Your task to perform on an android device: choose inbox layout in the gmail app Image 0: 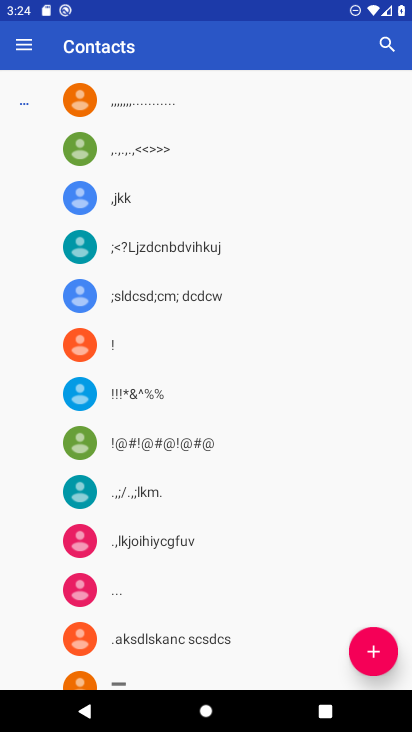
Step 0: press home button
Your task to perform on an android device: choose inbox layout in the gmail app Image 1: 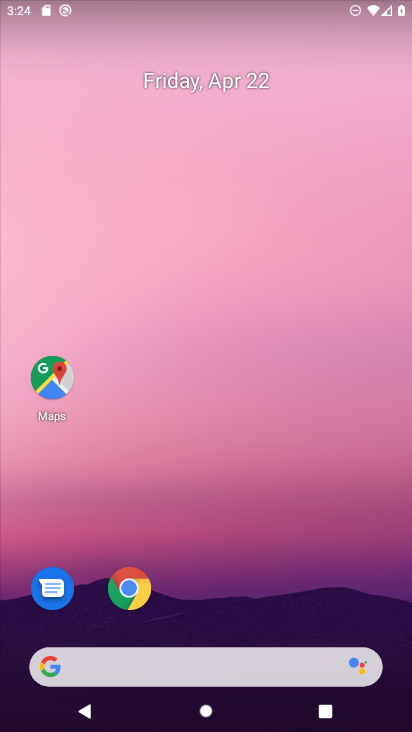
Step 1: drag from (200, 632) to (286, 161)
Your task to perform on an android device: choose inbox layout in the gmail app Image 2: 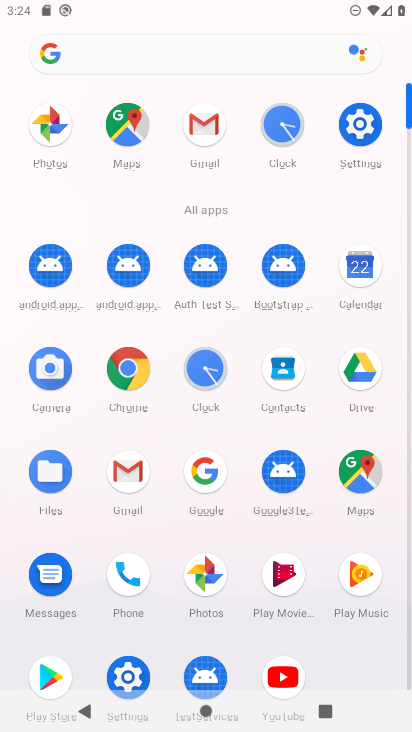
Step 2: click (132, 480)
Your task to perform on an android device: choose inbox layout in the gmail app Image 3: 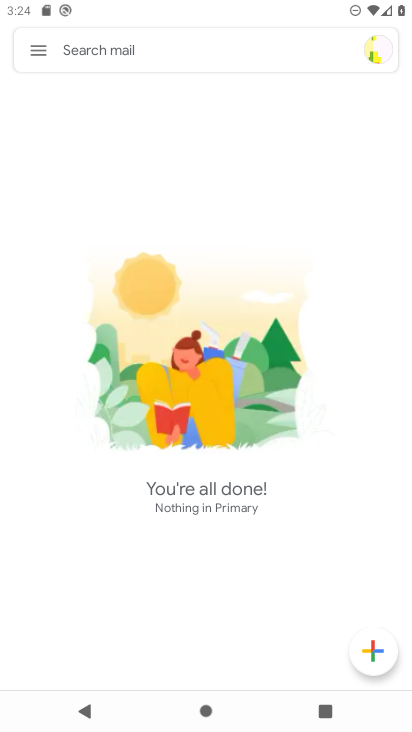
Step 3: click (45, 53)
Your task to perform on an android device: choose inbox layout in the gmail app Image 4: 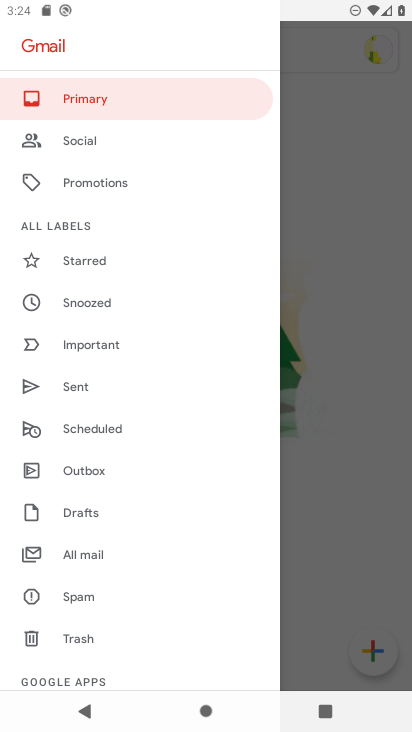
Step 4: drag from (126, 642) to (161, 274)
Your task to perform on an android device: choose inbox layout in the gmail app Image 5: 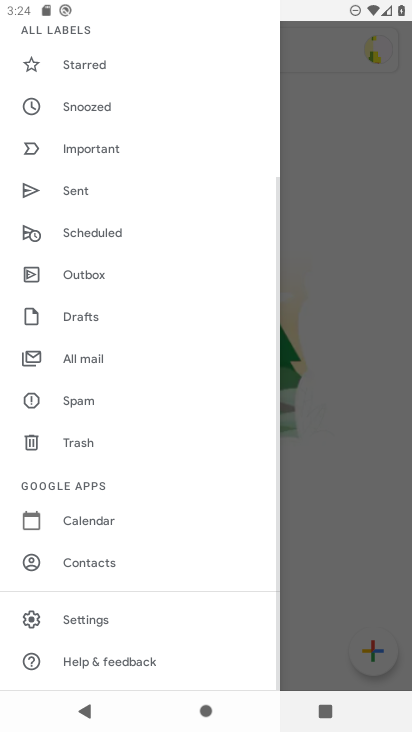
Step 5: click (96, 620)
Your task to perform on an android device: choose inbox layout in the gmail app Image 6: 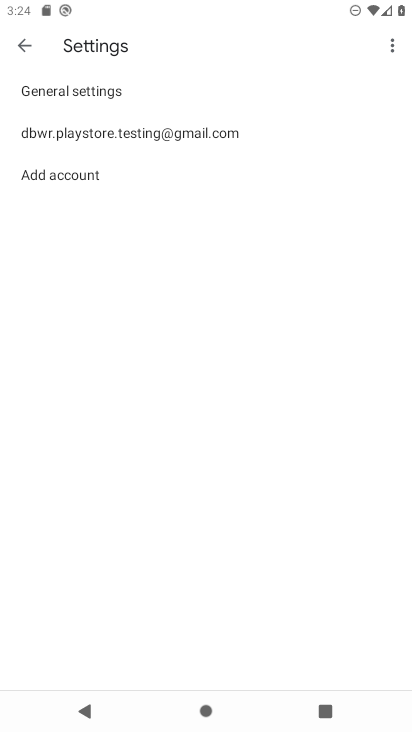
Step 6: click (143, 133)
Your task to perform on an android device: choose inbox layout in the gmail app Image 7: 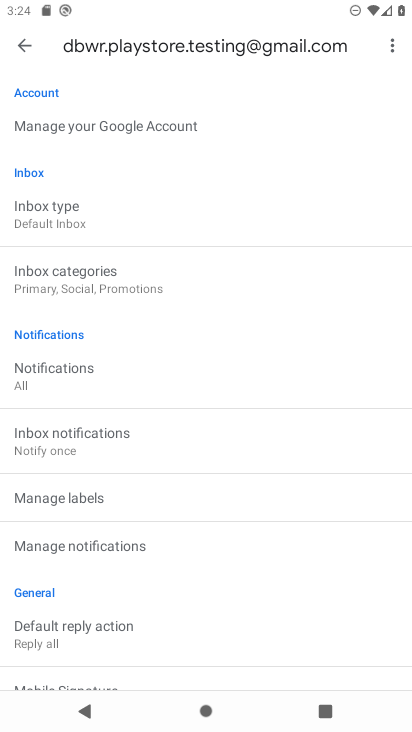
Step 7: click (101, 203)
Your task to perform on an android device: choose inbox layout in the gmail app Image 8: 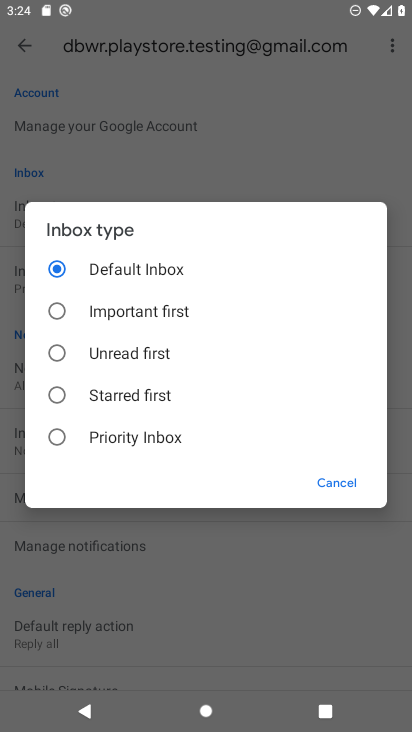
Step 8: click (115, 430)
Your task to perform on an android device: choose inbox layout in the gmail app Image 9: 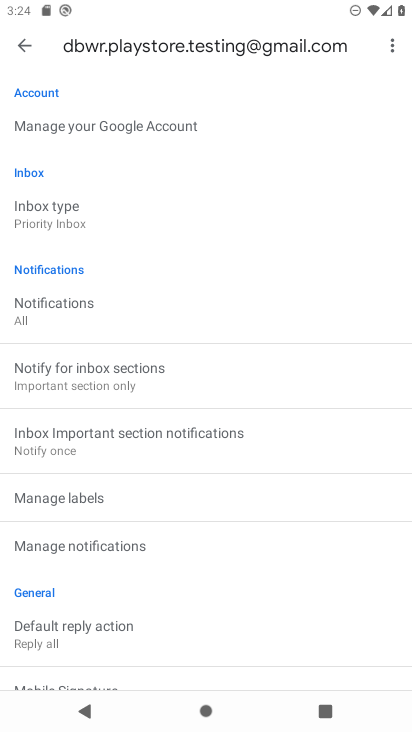
Step 9: task complete